Your task to perform on an android device: open chrome and create a bookmark for the current page Image 0: 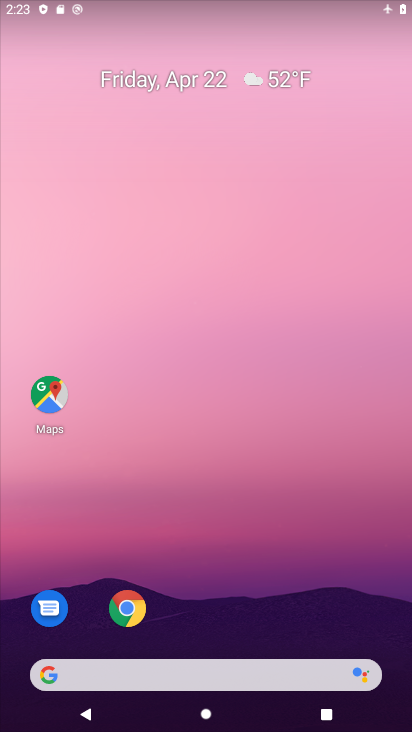
Step 0: drag from (312, 576) to (234, 58)
Your task to perform on an android device: open chrome and create a bookmark for the current page Image 1: 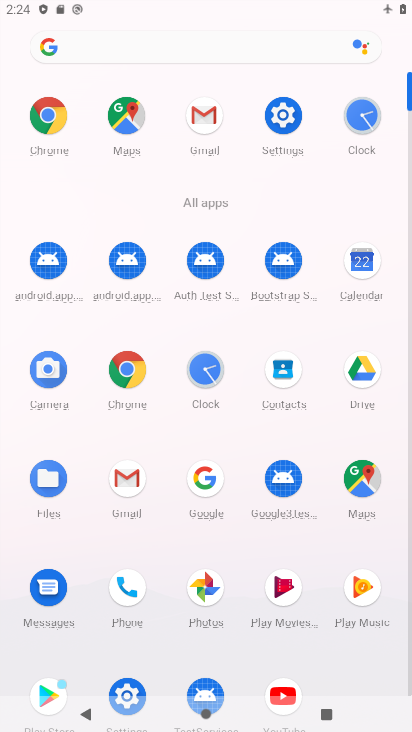
Step 1: click (127, 366)
Your task to perform on an android device: open chrome and create a bookmark for the current page Image 2: 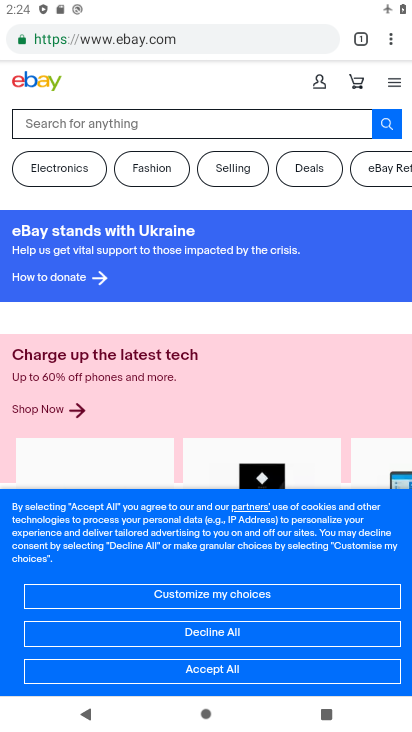
Step 2: click (395, 37)
Your task to perform on an android device: open chrome and create a bookmark for the current page Image 3: 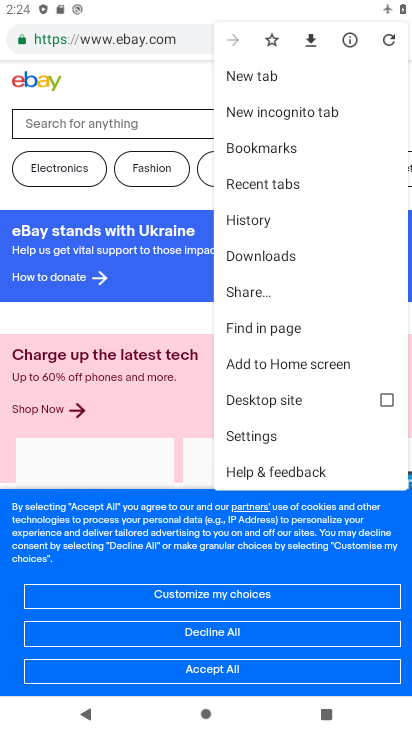
Step 3: click (271, 34)
Your task to perform on an android device: open chrome and create a bookmark for the current page Image 4: 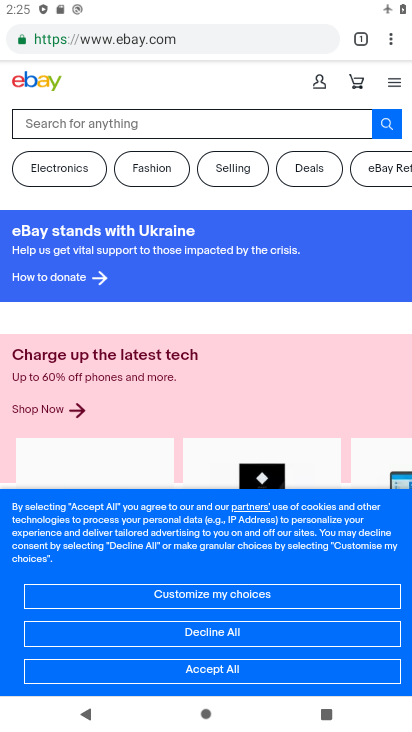
Step 4: task complete